Your task to perform on an android device: toggle pop-ups in chrome Image 0: 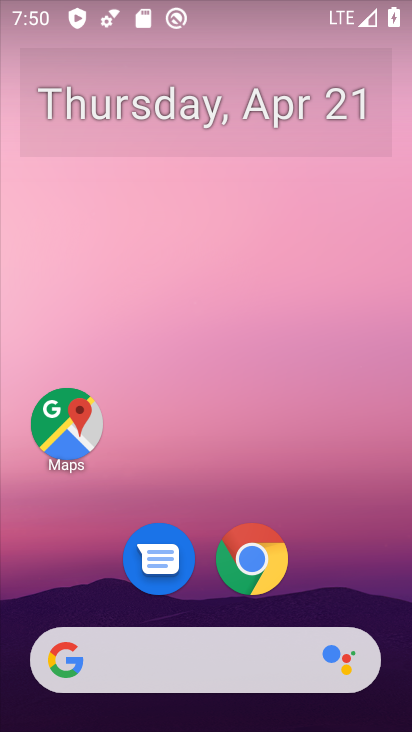
Step 0: drag from (346, 540) to (352, 178)
Your task to perform on an android device: toggle pop-ups in chrome Image 1: 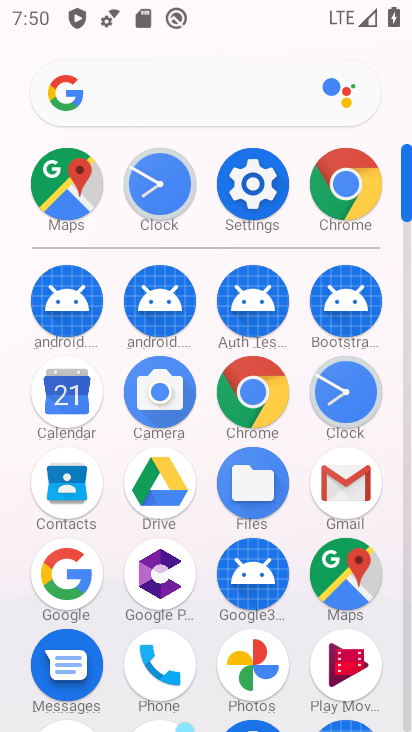
Step 1: click (267, 401)
Your task to perform on an android device: toggle pop-ups in chrome Image 2: 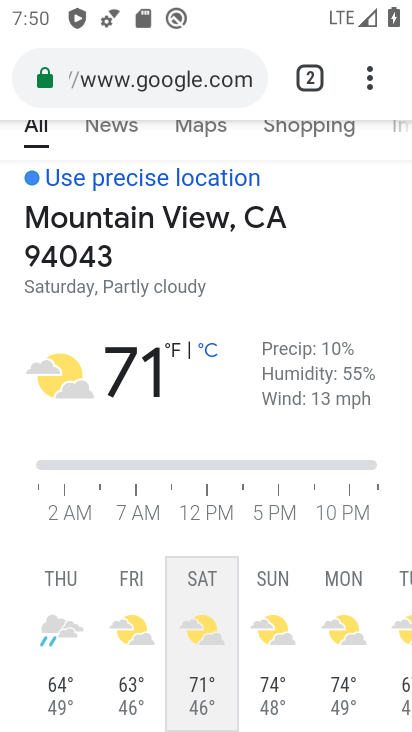
Step 2: drag from (374, 86) to (165, 626)
Your task to perform on an android device: toggle pop-ups in chrome Image 3: 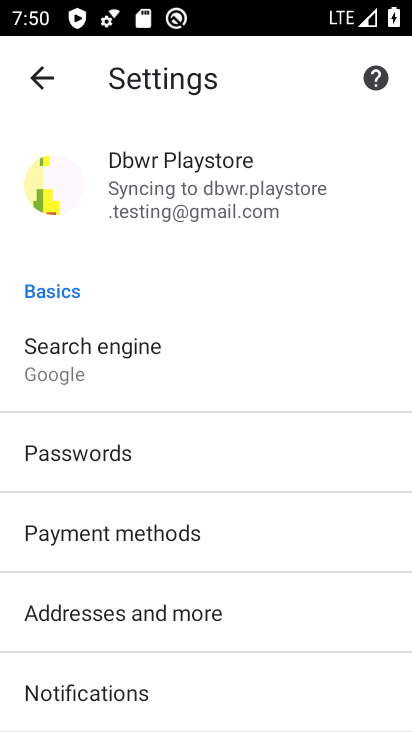
Step 3: drag from (292, 670) to (284, 251)
Your task to perform on an android device: toggle pop-ups in chrome Image 4: 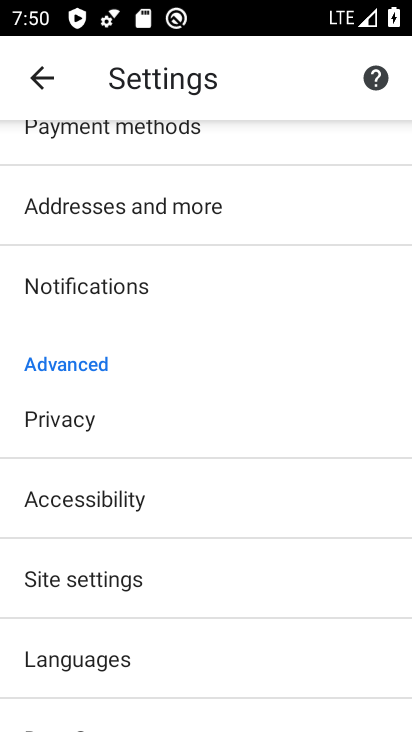
Step 4: drag from (294, 594) to (292, 371)
Your task to perform on an android device: toggle pop-ups in chrome Image 5: 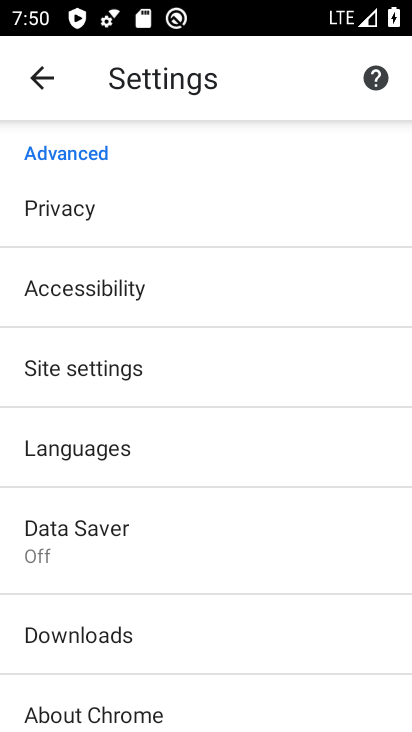
Step 5: click (158, 375)
Your task to perform on an android device: toggle pop-ups in chrome Image 6: 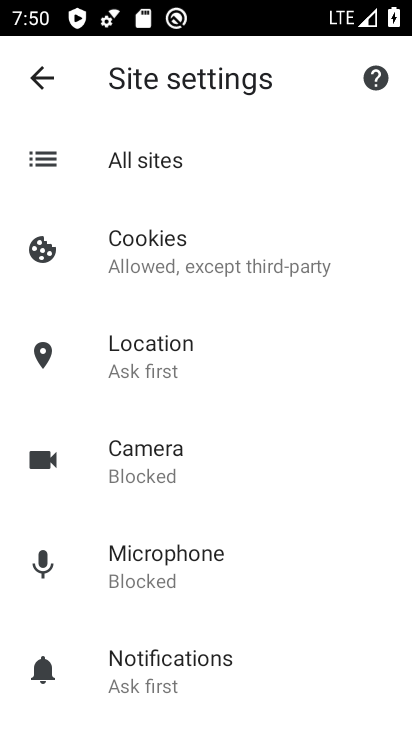
Step 6: drag from (229, 505) to (240, 271)
Your task to perform on an android device: toggle pop-ups in chrome Image 7: 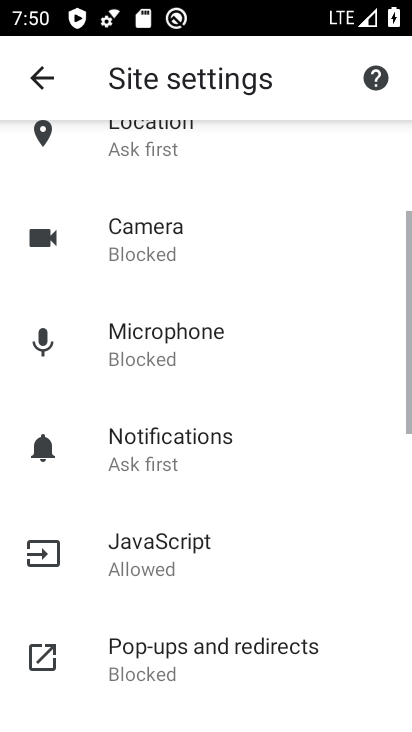
Step 7: click (212, 637)
Your task to perform on an android device: toggle pop-ups in chrome Image 8: 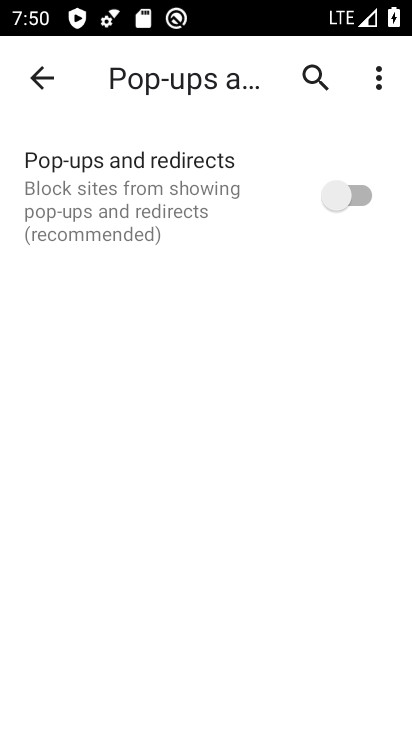
Step 8: click (356, 203)
Your task to perform on an android device: toggle pop-ups in chrome Image 9: 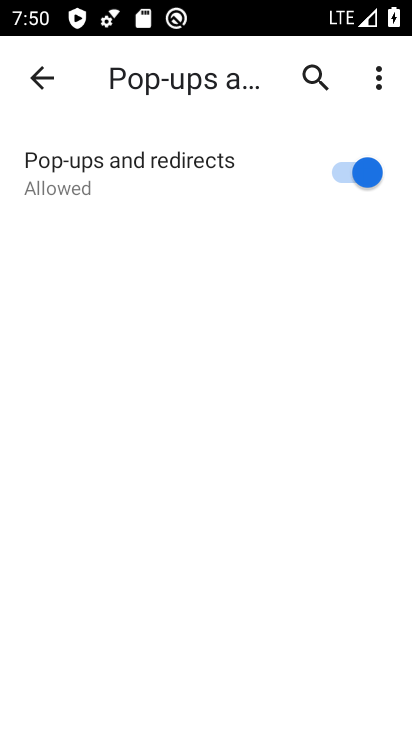
Step 9: task complete